Your task to perform on an android device: turn off translation in the chrome app Image 0: 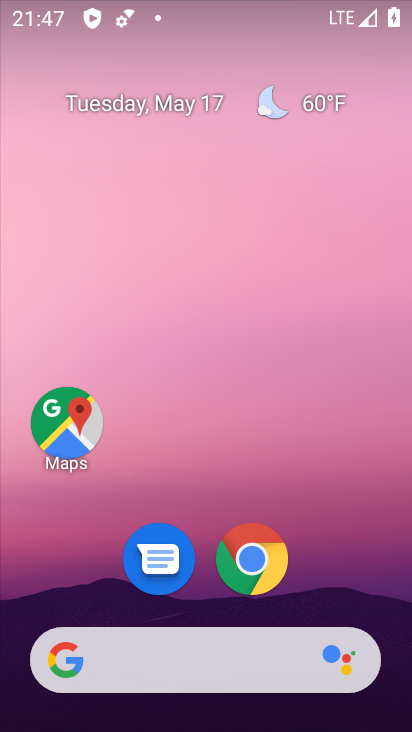
Step 0: click (248, 564)
Your task to perform on an android device: turn off translation in the chrome app Image 1: 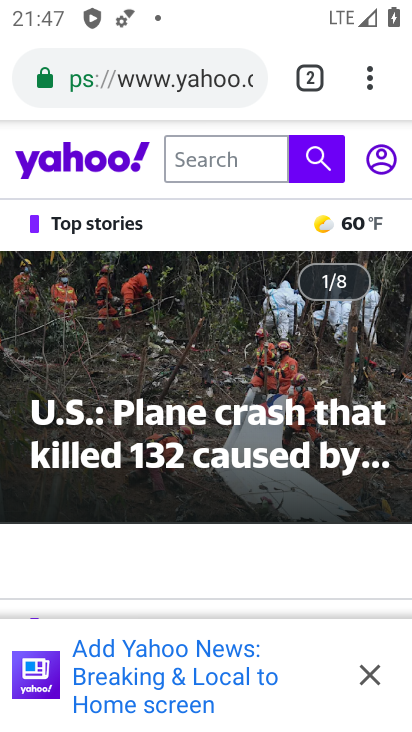
Step 1: drag from (364, 77) to (196, 627)
Your task to perform on an android device: turn off translation in the chrome app Image 2: 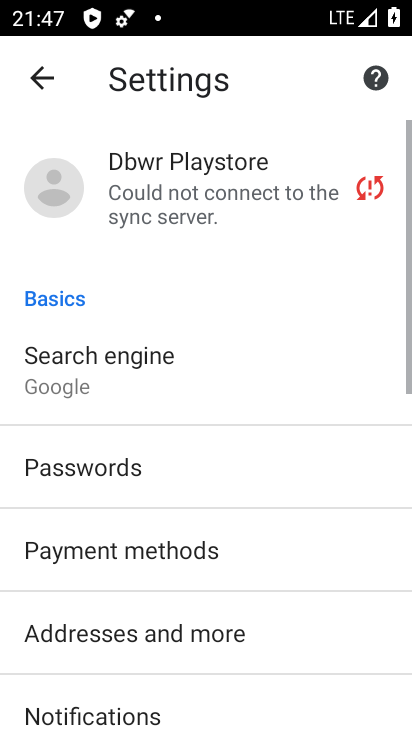
Step 2: drag from (201, 611) to (299, 102)
Your task to perform on an android device: turn off translation in the chrome app Image 3: 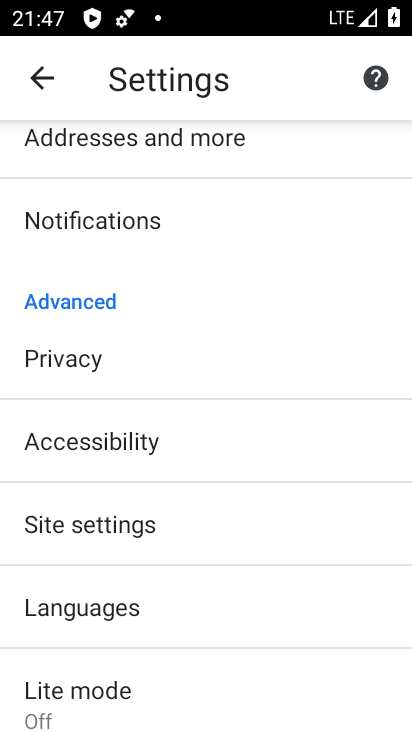
Step 3: click (120, 612)
Your task to perform on an android device: turn off translation in the chrome app Image 4: 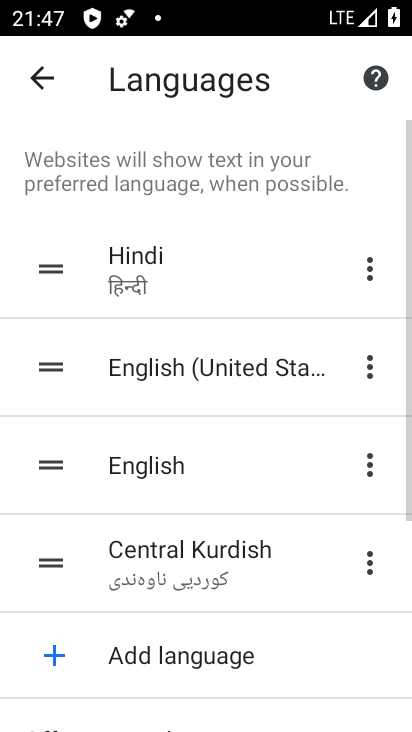
Step 4: task complete